Your task to perform on an android device: Open Maps and search for coffee Image 0: 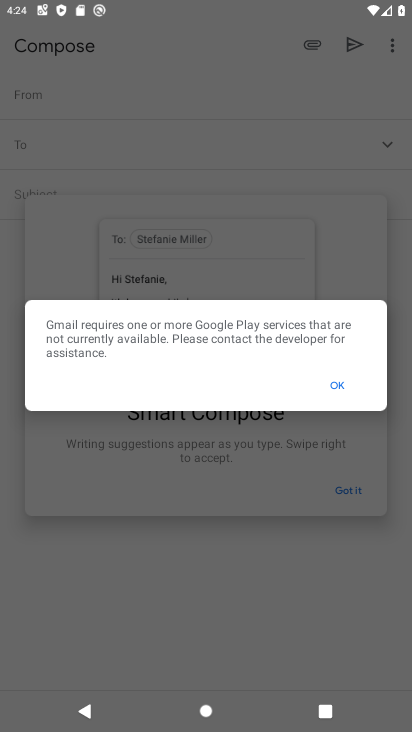
Step 0: drag from (221, 38) to (263, 699)
Your task to perform on an android device: Open Maps and search for coffee Image 1: 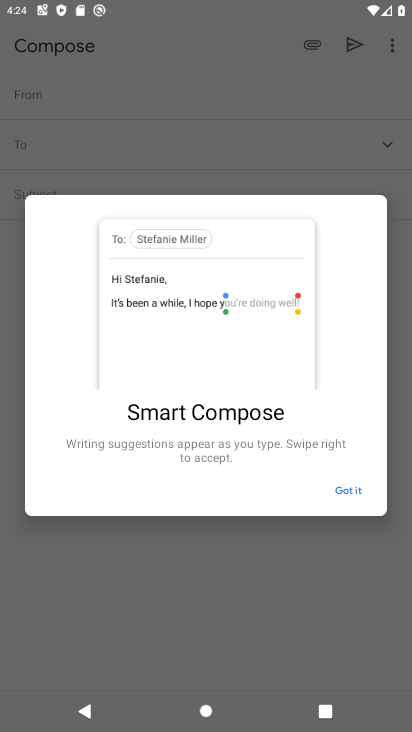
Step 1: press home button
Your task to perform on an android device: Open Maps and search for coffee Image 2: 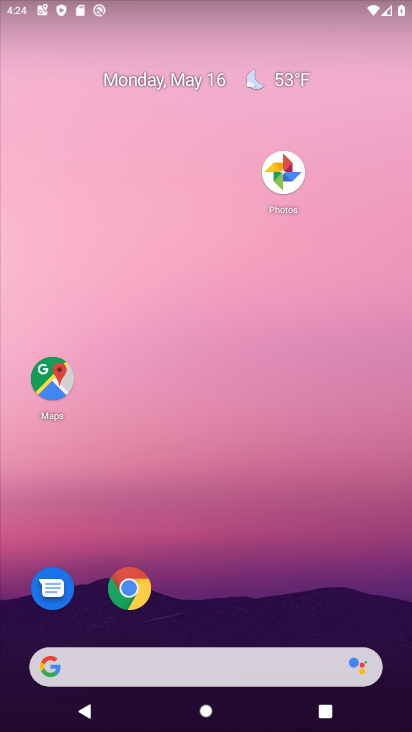
Step 2: click (60, 395)
Your task to perform on an android device: Open Maps and search for coffee Image 3: 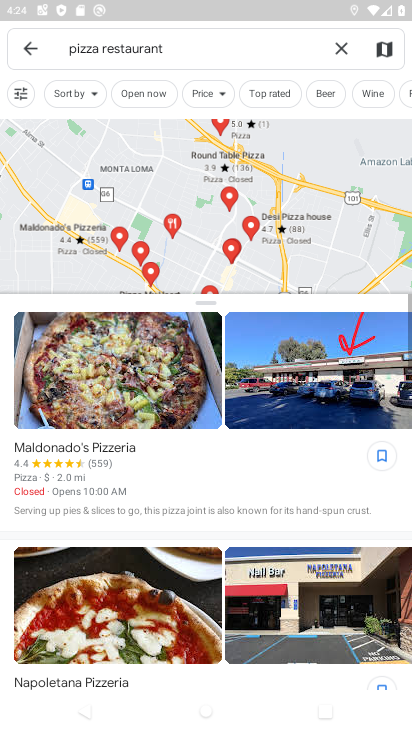
Step 3: click (349, 39)
Your task to perform on an android device: Open Maps and search for coffee Image 4: 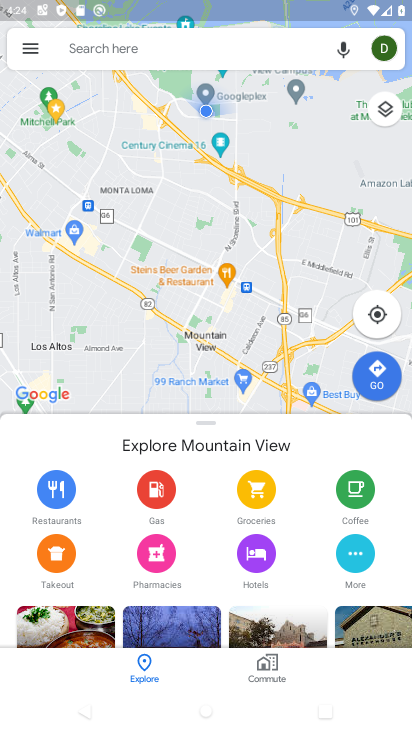
Step 4: click (257, 54)
Your task to perform on an android device: Open Maps and search for coffee Image 5: 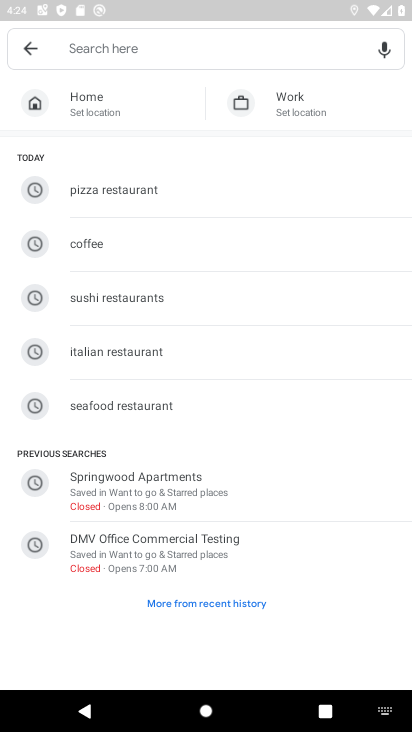
Step 5: click (217, 260)
Your task to perform on an android device: Open Maps and search for coffee Image 6: 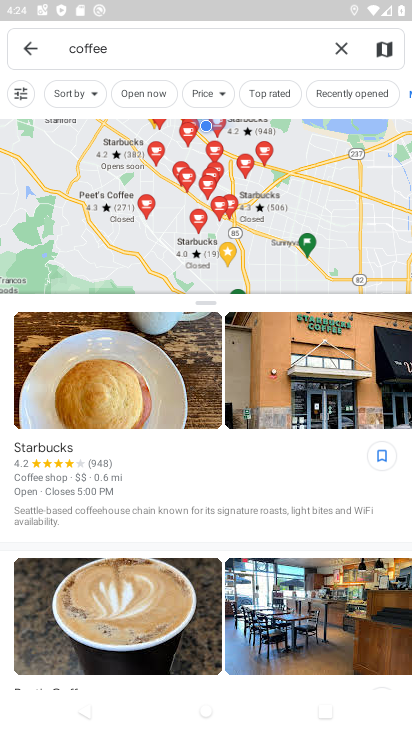
Step 6: task complete